Your task to perform on an android device: Search for sushi restaurants on Maps Image 0: 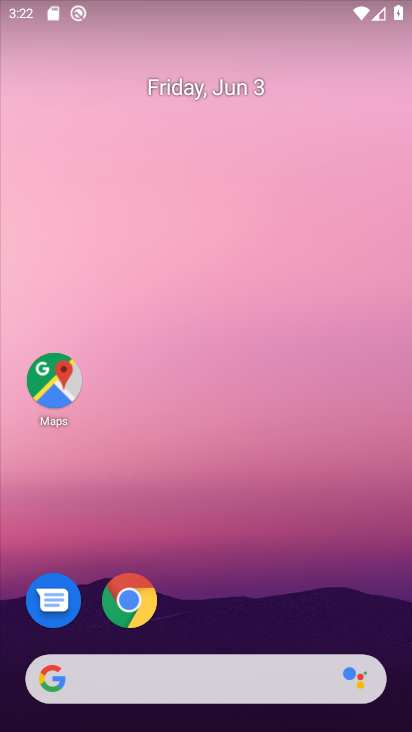
Step 0: click (57, 395)
Your task to perform on an android device: Search for sushi restaurants on Maps Image 1: 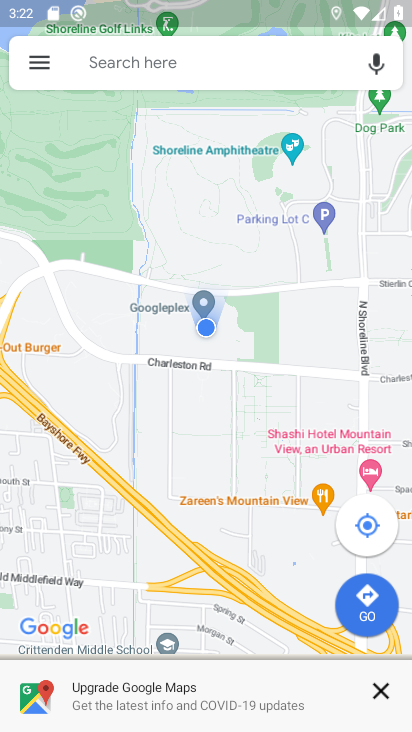
Step 1: click (185, 54)
Your task to perform on an android device: Search for sushi restaurants on Maps Image 2: 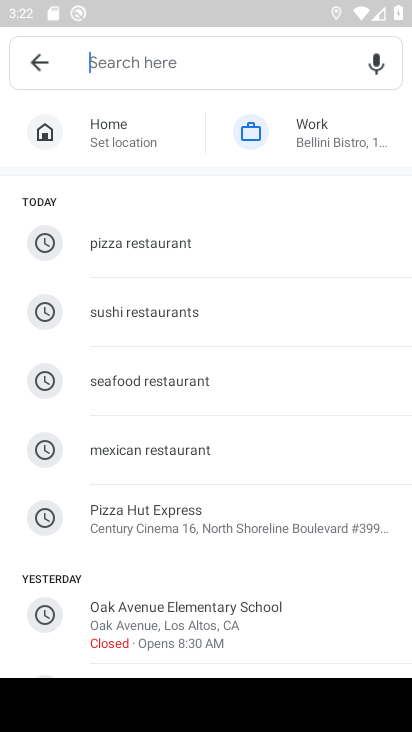
Step 2: click (151, 312)
Your task to perform on an android device: Search for sushi restaurants on Maps Image 3: 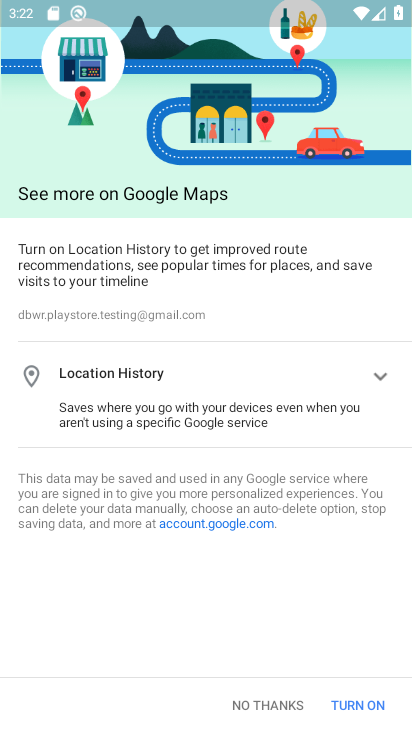
Step 3: click (265, 719)
Your task to perform on an android device: Search for sushi restaurants on Maps Image 4: 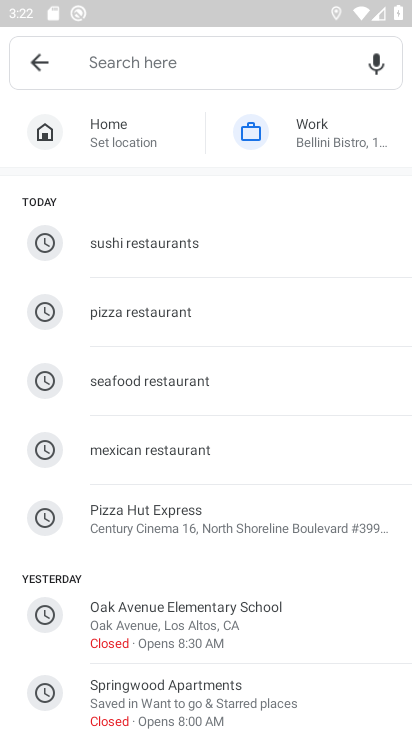
Step 4: click (170, 246)
Your task to perform on an android device: Search for sushi restaurants on Maps Image 5: 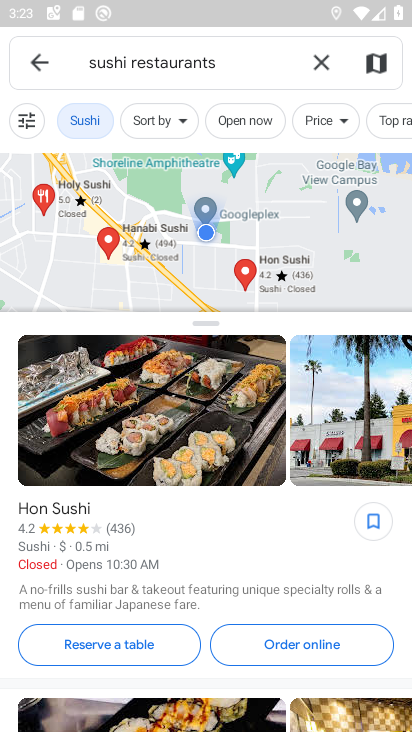
Step 5: task complete